Your task to perform on an android device: Open calendar and show me the fourth week of next month Image 0: 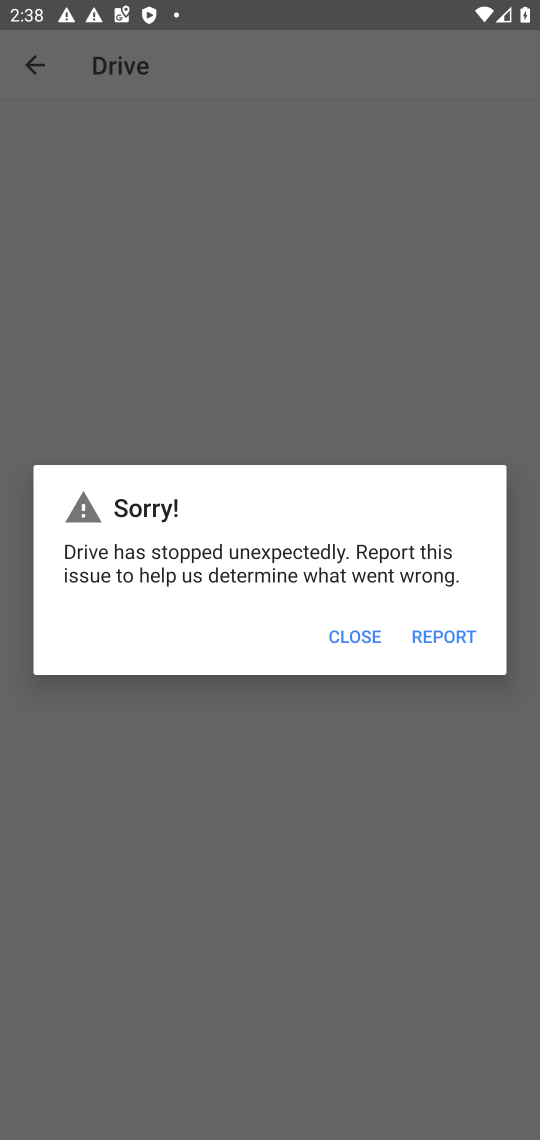
Step 0: press home button
Your task to perform on an android device: Open calendar and show me the fourth week of next month Image 1: 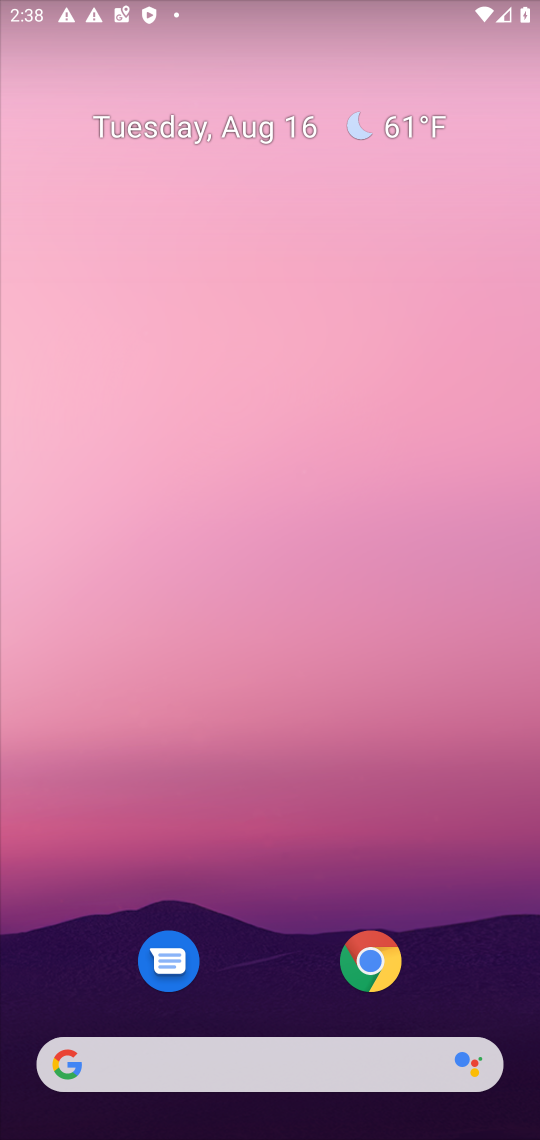
Step 1: drag from (452, 473) to (313, 82)
Your task to perform on an android device: Open calendar and show me the fourth week of next month Image 2: 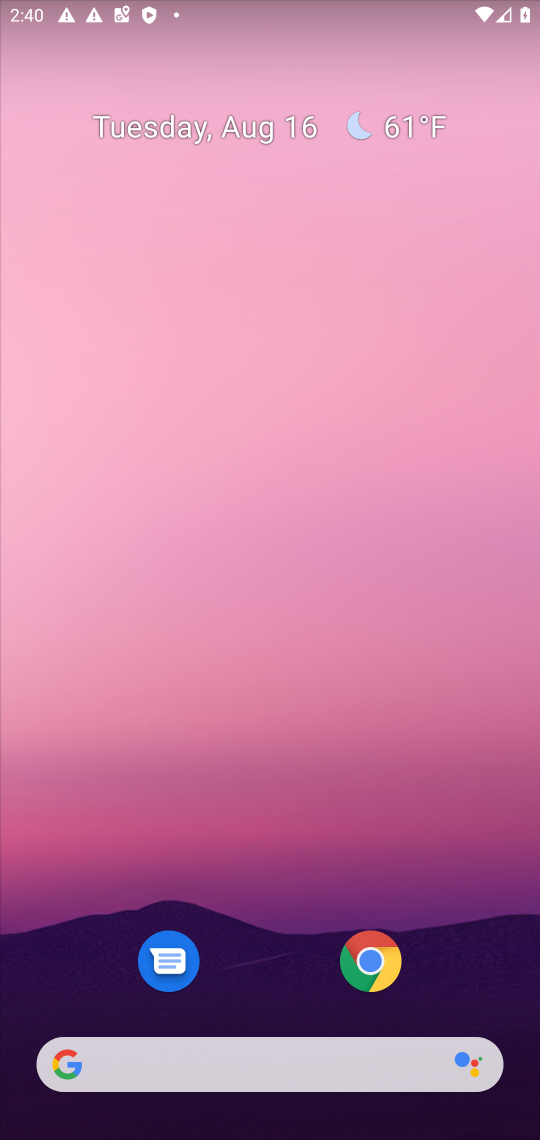
Step 2: drag from (476, 967) to (334, 27)
Your task to perform on an android device: Open calendar and show me the fourth week of next month Image 3: 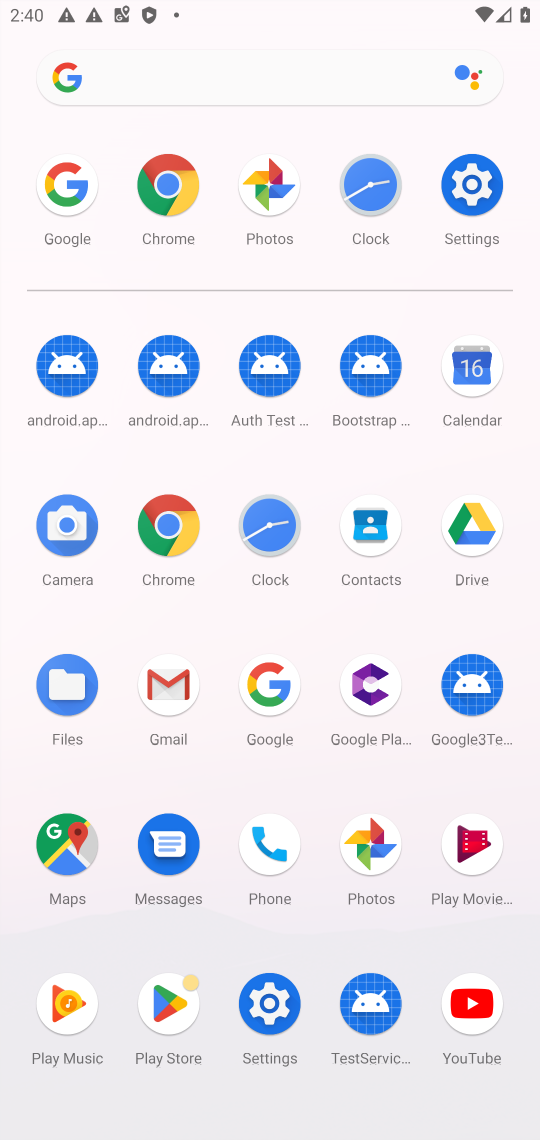
Step 3: click (463, 375)
Your task to perform on an android device: Open calendar and show me the fourth week of next month Image 4: 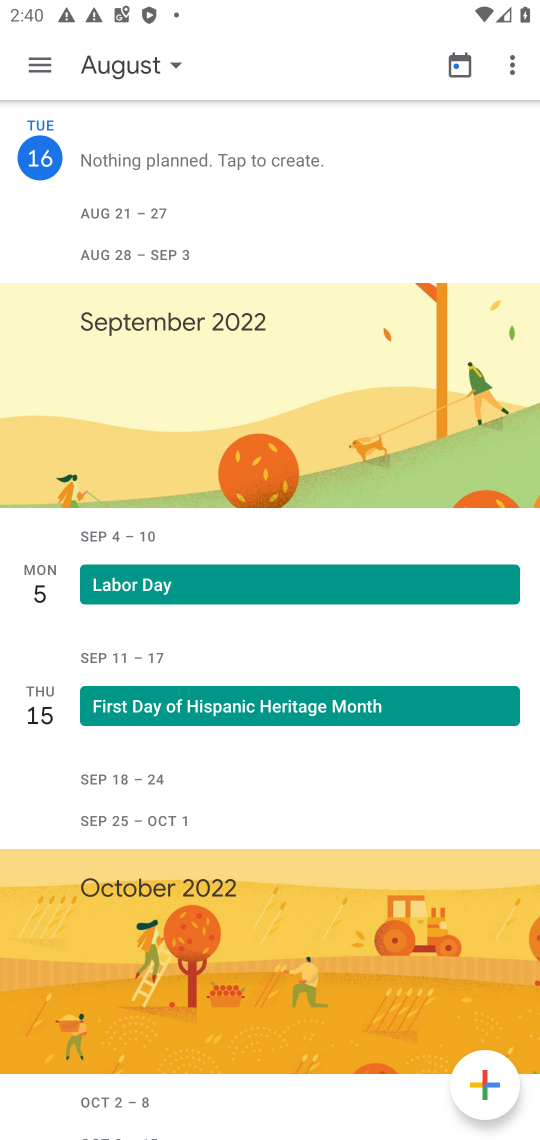
Step 4: click (132, 73)
Your task to perform on an android device: Open calendar and show me the fourth week of next month Image 5: 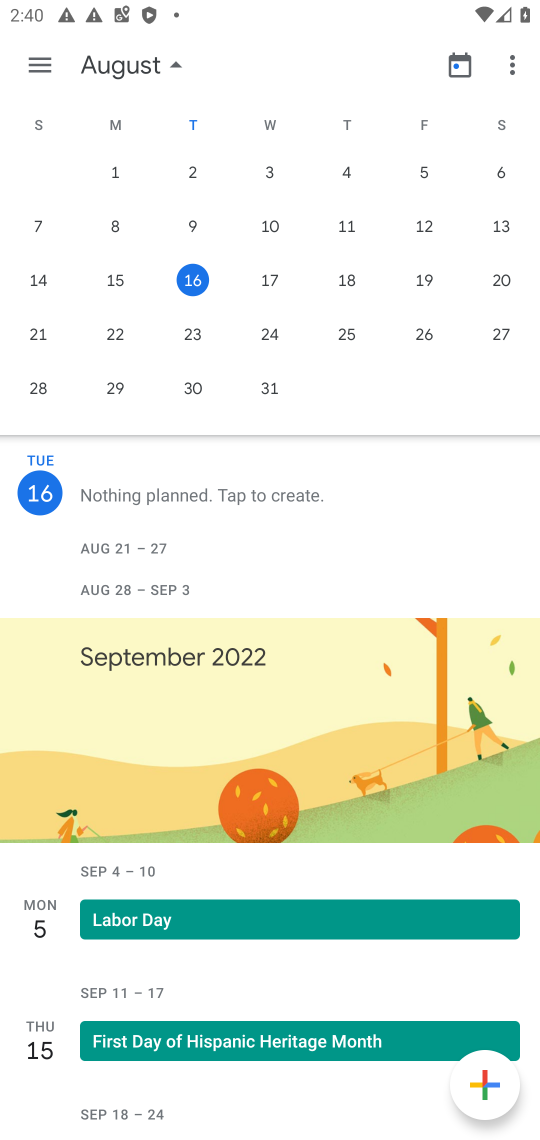
Step 5: drag from (480, 312) to (34, 272)
Your task to perform on an android device: Open calendar and show me the fourth week of next month Image 6: 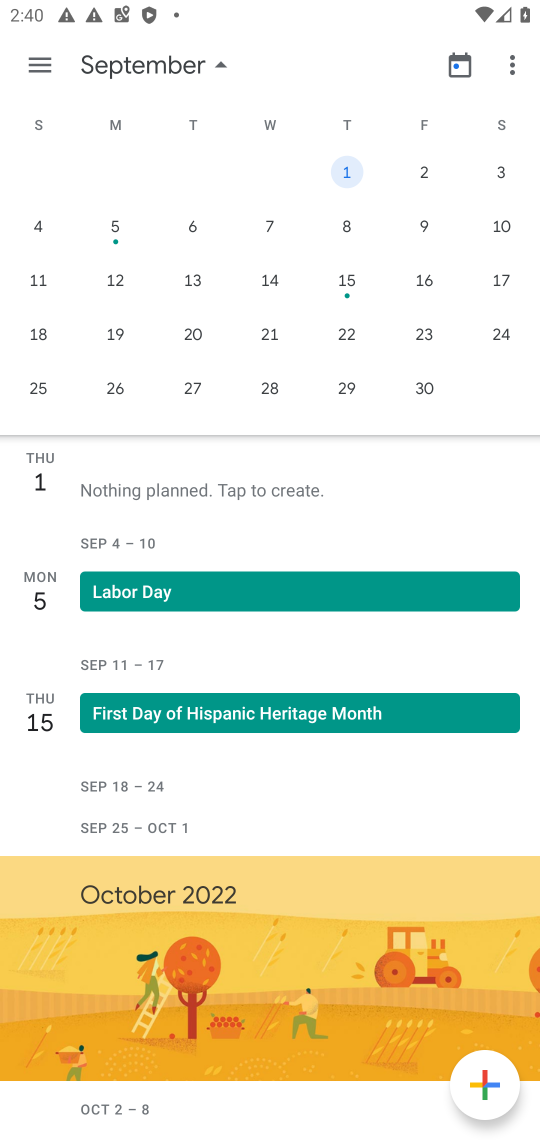
Step 6: click (44, 329)
Your task to perform on an android device: Open calendar and show me the fourth week of next month Image 7: 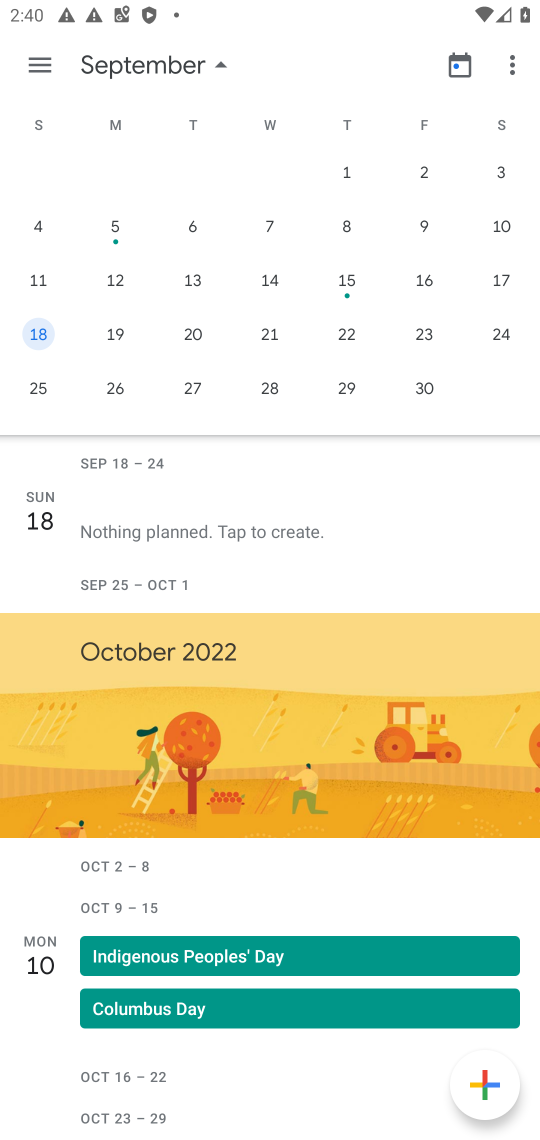
Step 7: click (36, 381)
Your task to perform on an android device: Open calendar and show me the fourth week of next month Image 8: 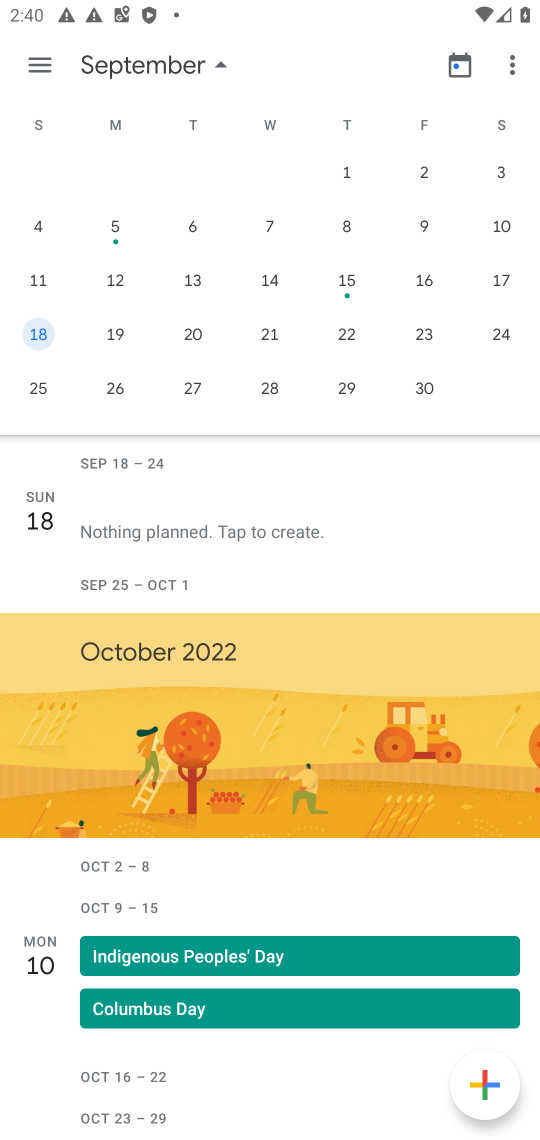
Step 8: click (42, 392)
Your task to perform on an android device: Open calendar and show me the fourth week of next month Image 9: 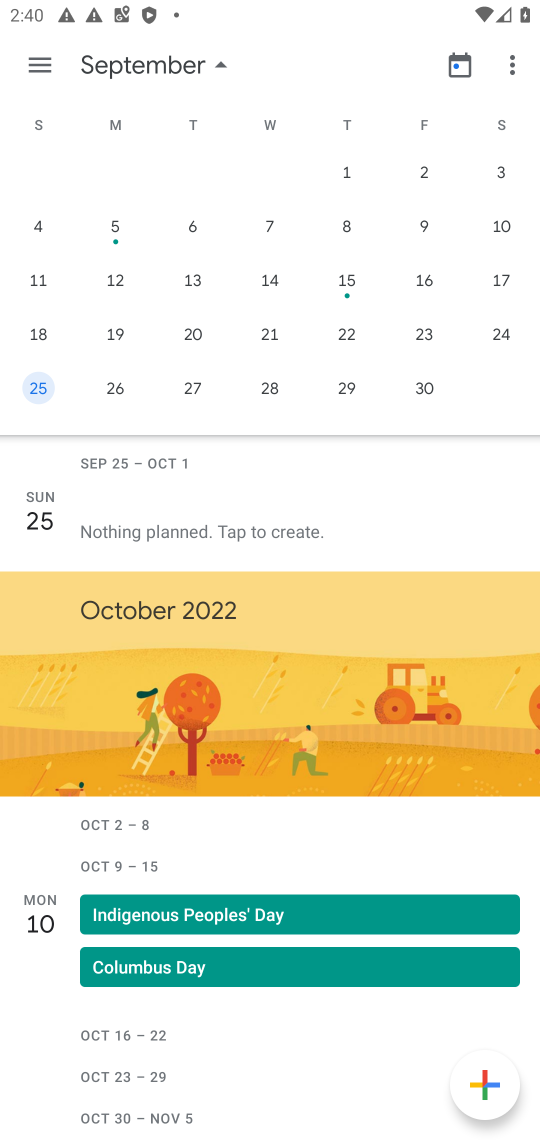
Step 9: task complete